Your task to perform on an android device: Open Google Chrome and click the shortcut for Amazon.com Image 0: 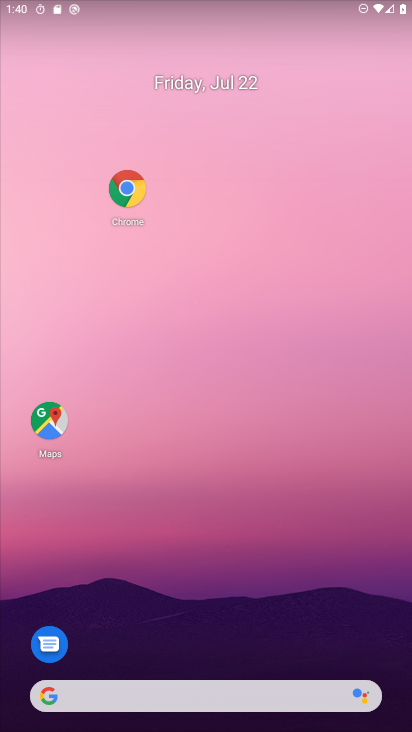
Step 0: click (131, 193)
Your task to perform on an android device: Open Google Chrome and click the shortcut for Amazon.com Image 1: 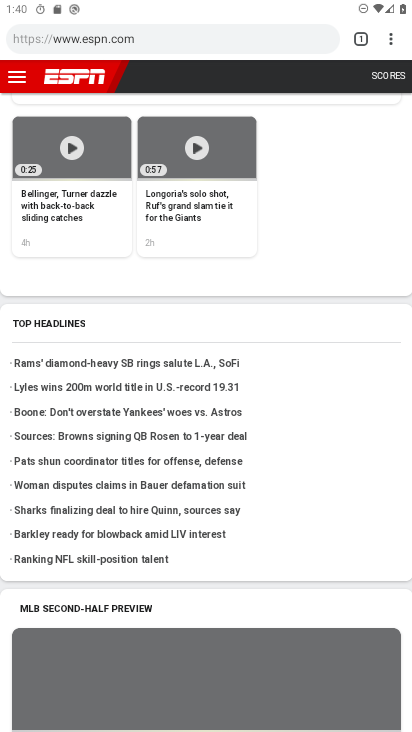
Step 1: click (131, 193)
Your task to perform on an android device: Open Google Chrome and click the shortcut for Amazon.com Image 2: 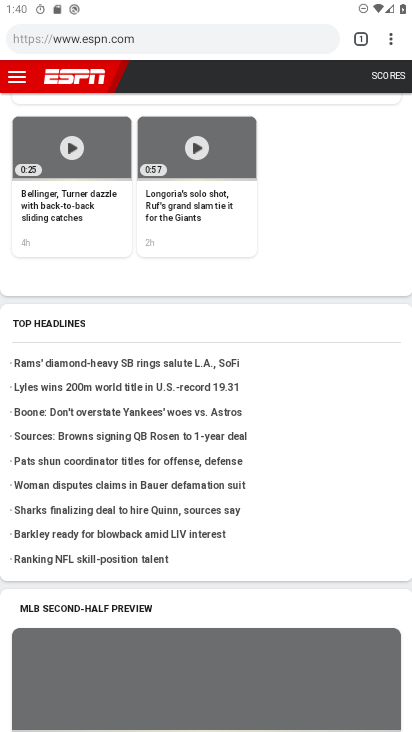
Step 2: click (383, 41)
Your task to perform on an android device: Open Google Chrome and click the shortcut for Amazon.com Image 3: 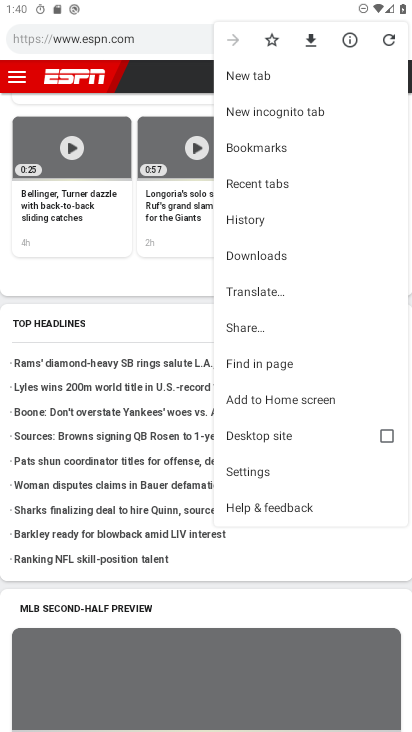
Step 3: click (259, 56)
Your task to perform on an android device: Open Google Chrome and click the shortcut for Amazon.com Image 4: 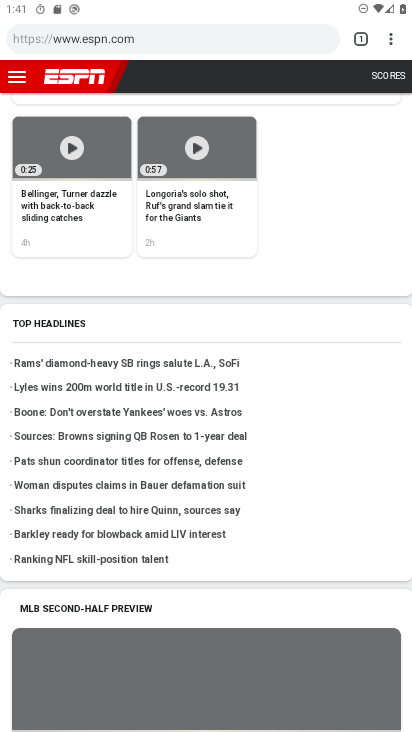
Step 4: click (401, 41)
Your task to perform on an android device: Open Google Chrome and click the shortcut for Amazon.com Image 5: 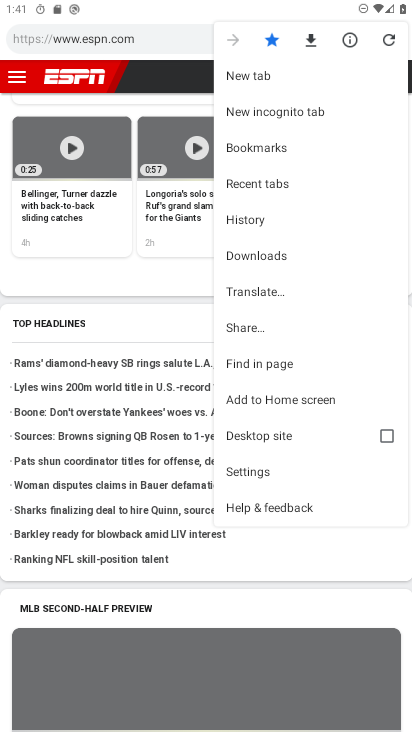
Step 5: click (291, 71)
Your task to perform on an android device: Open Google Chrome and click the shortcut for Amazon.com Image 6: 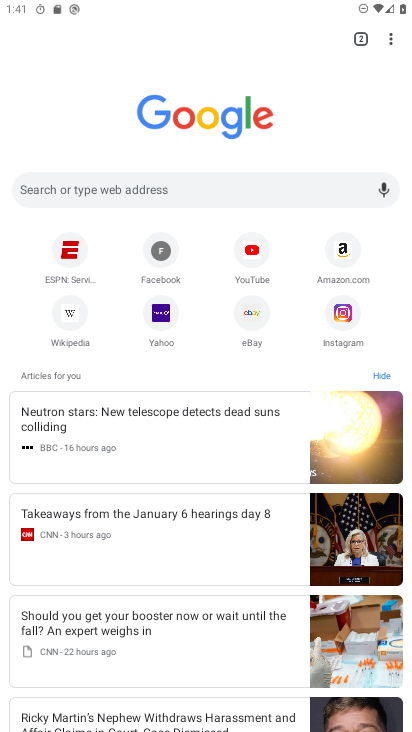
Step 6: click (328, 251)
Your task to perform on an android device: Open Google Chrome and click the shortcut for Amazon.com Image 7: 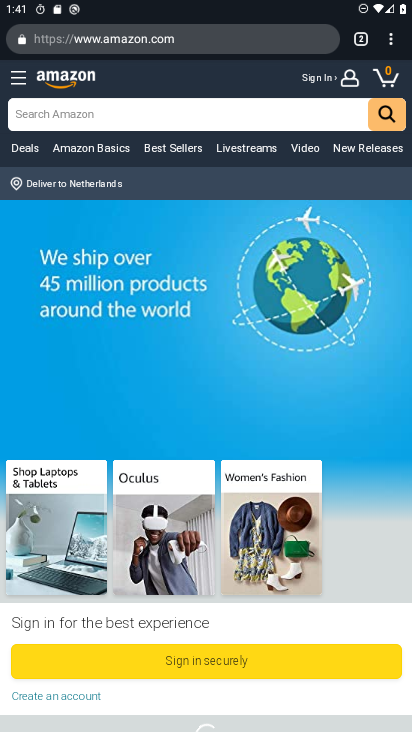
Step 7: task complete